Your task to perform on an android device: show emergency info Image 0: 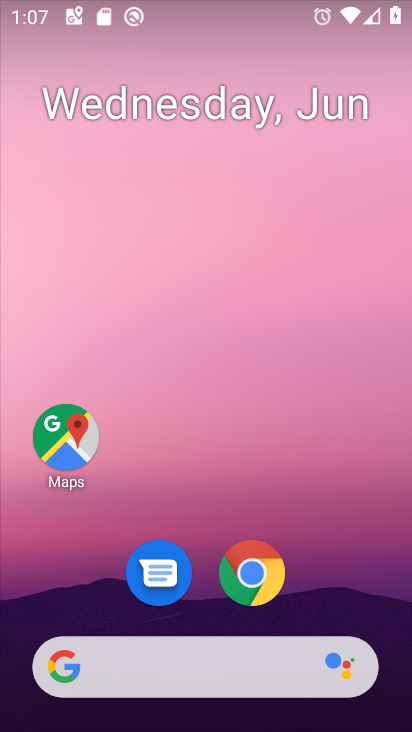
Step 0: drag from (236, 467) to (217, 59)
Your task to perform on an android device: show emergency info Image 1: 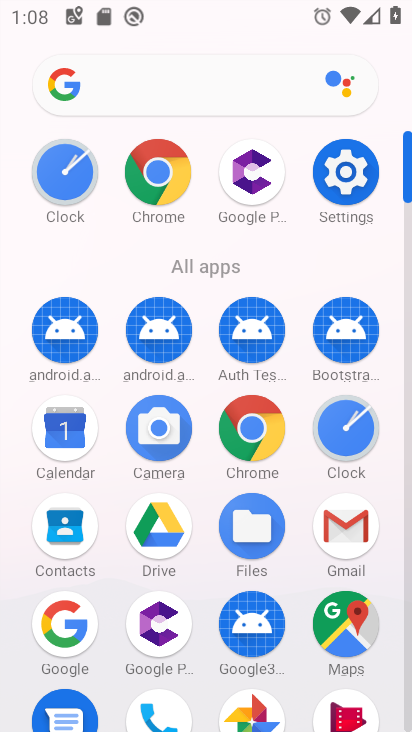
Step 1: click (358, 166)
Your task to perform on an android device: show emergency info Image 2: 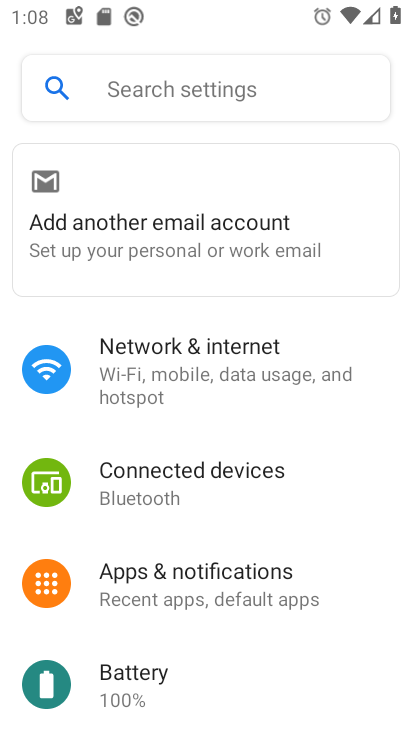
Step 2: drag from (227, 592) to (281, 128)
Your task to perform on an android device: show emergency info Image 3: 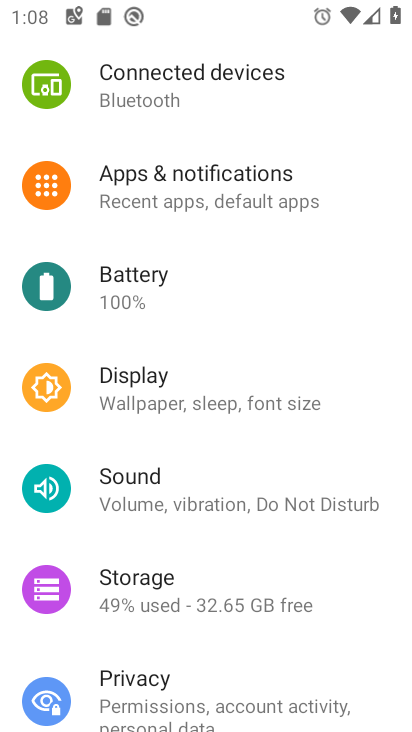
Step 3: drag from (196, 671) to (240, 143)
Your task to perform on an android device: show emergency info Image 4: 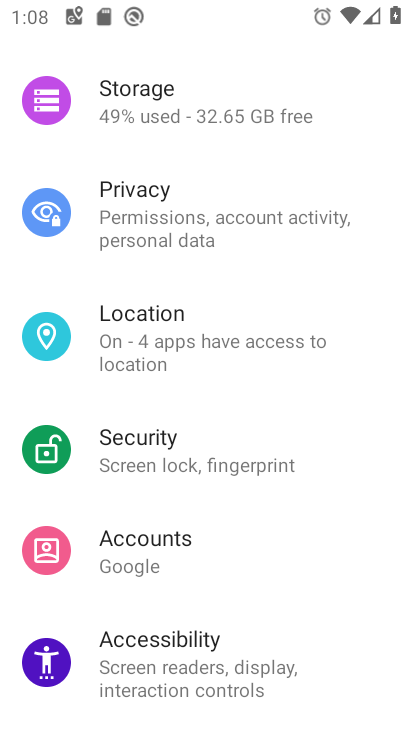
Step 4: drag from (192, 631) to (241, 142)
Your task to perform on an android device: show emergency info Image 5: 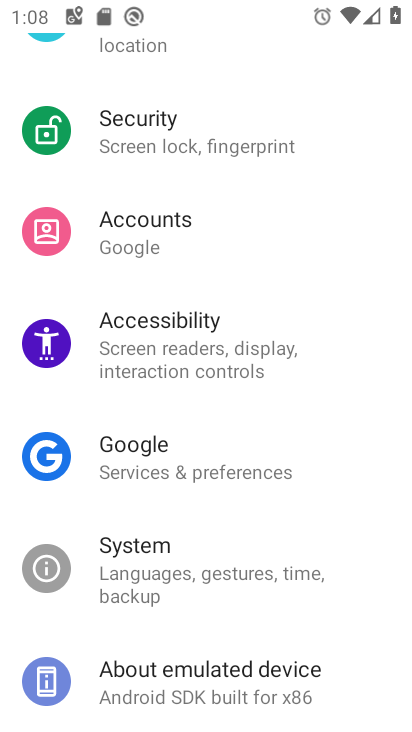
Step 5: drag from (157, 665) to (249, 6)
Your task to perform on an android device: show emergency info Image 6: 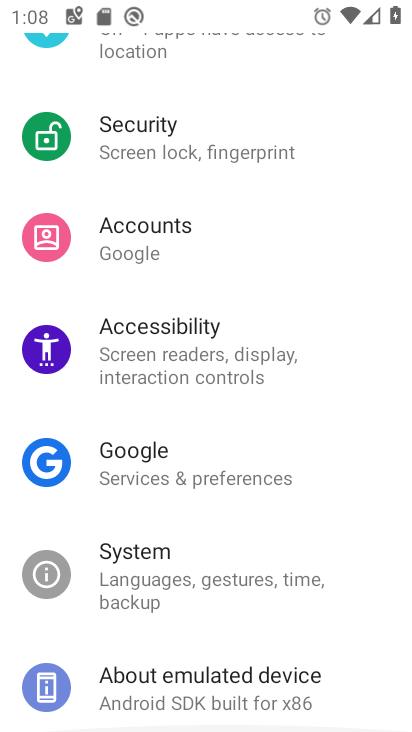
Step 6: click (172, 673)
Your task to perform on an android device: show emergency info Image 7: 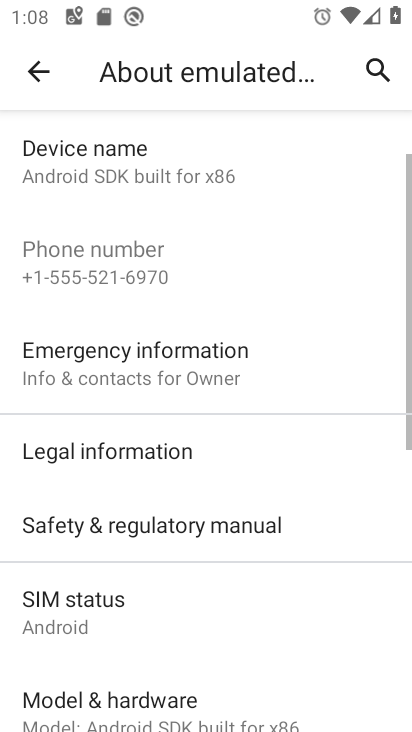
Step 7: click (136, 358)
Your task to perform on an android device: show emergency info Image 8: 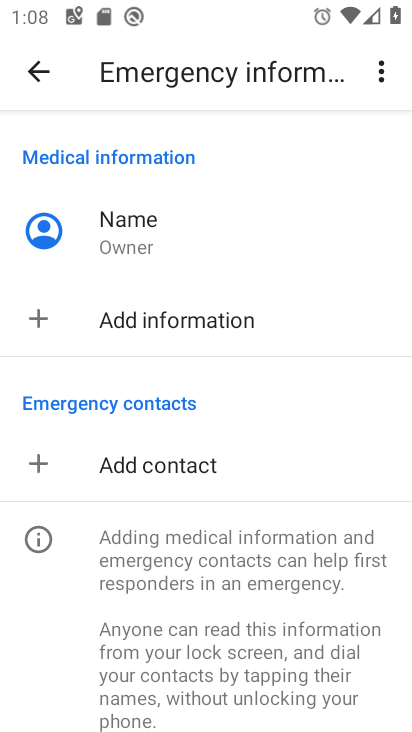
Step 8: task complete